Your task to perform on an android device: Show me recent news Image 0: 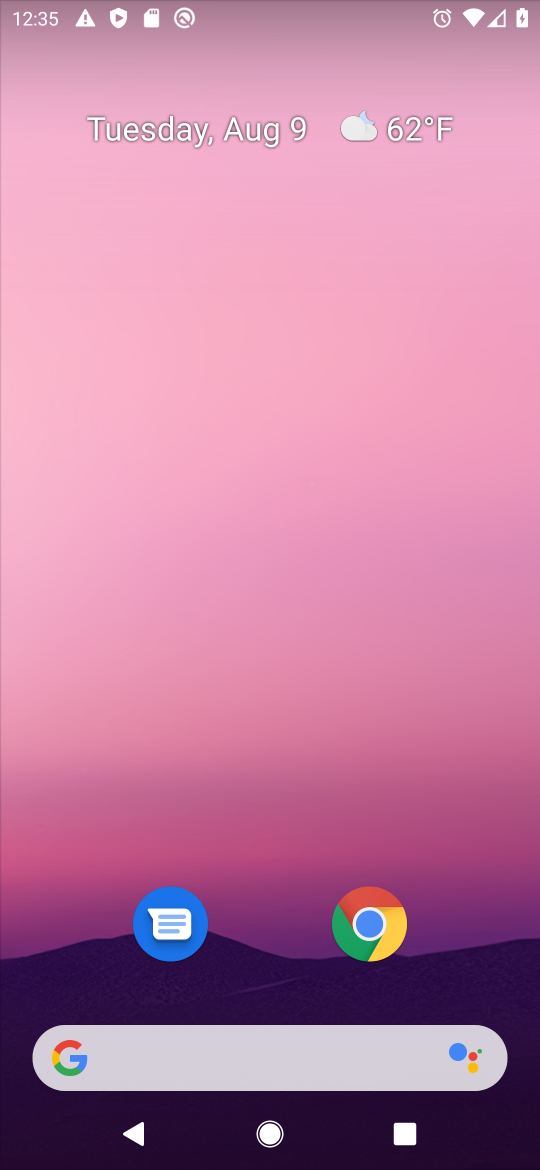
Step 0: click (374, 1039)
Your task to perform on an android device: Show me recent news Image 1: 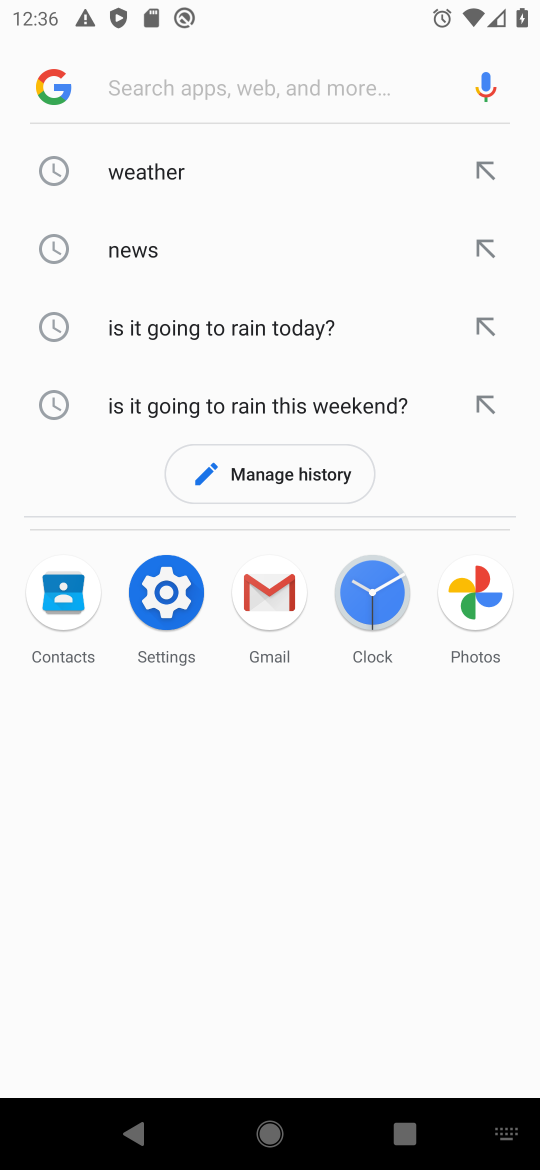
Step 1: click (282, 277)
Your task to perform on an android device: Show me recent news Image 2: 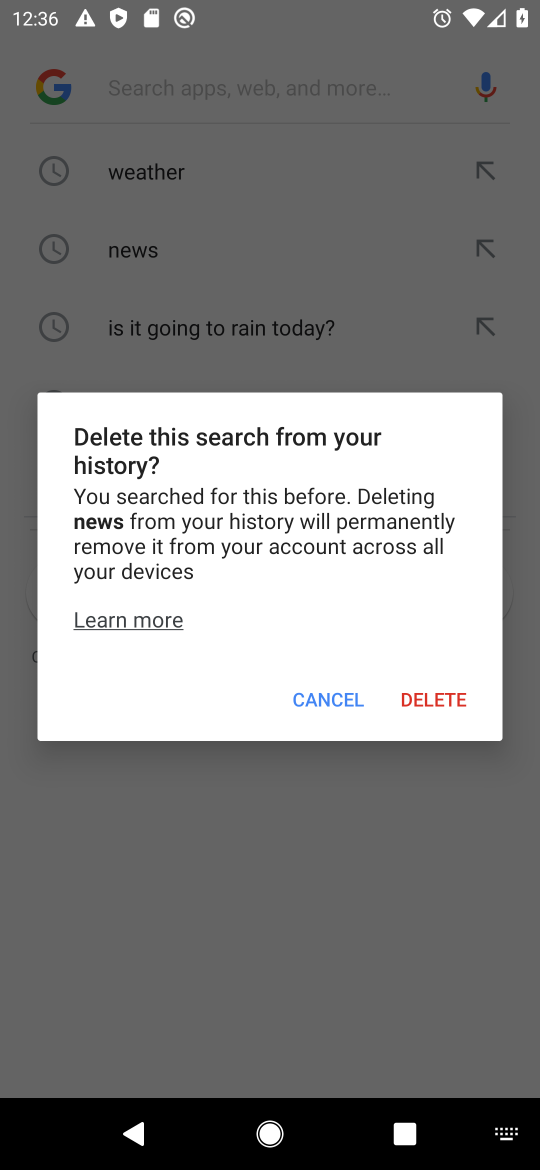
Step 2: click (344, 702)
Your task to perform on an android device: Show me recent news Image 3: 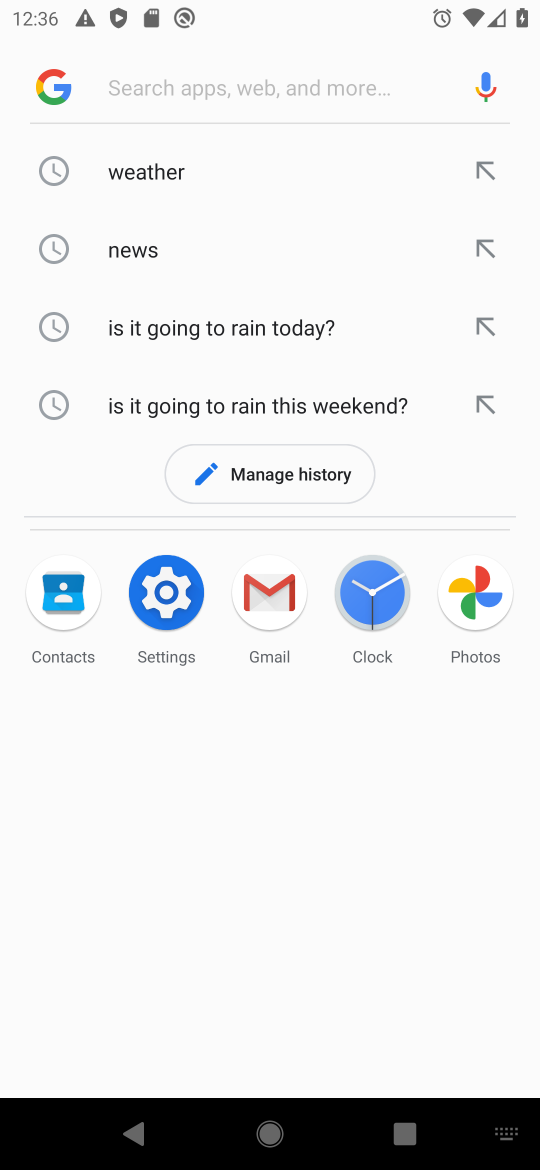
Step 3: click (155, 264)
Your task to perform on an android device: Show me recent news Image 4: 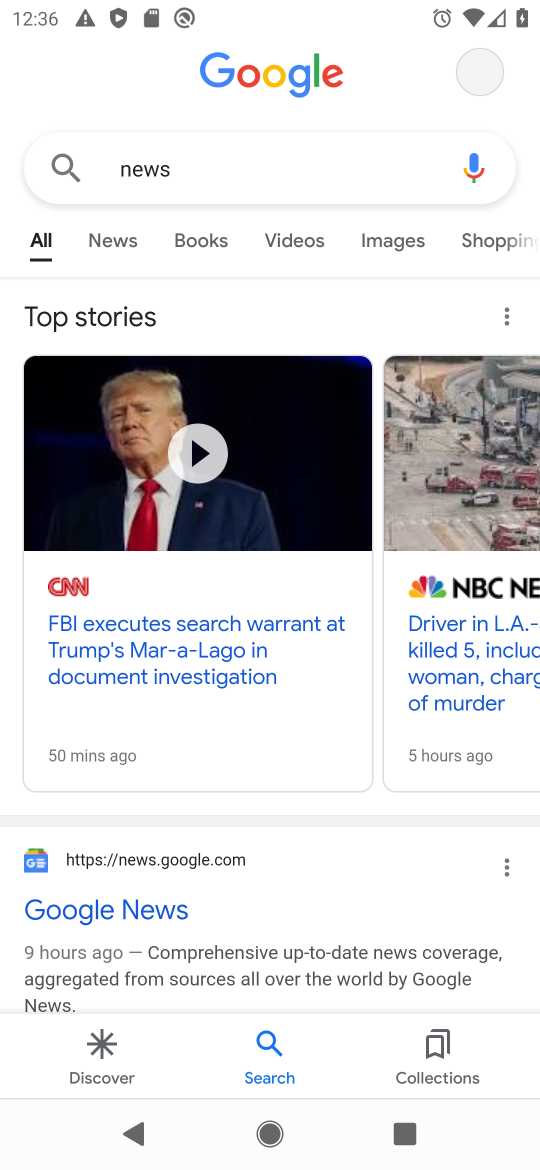
Step 4: task complete